Your task to perform on an android device: turn on location history Image 0: 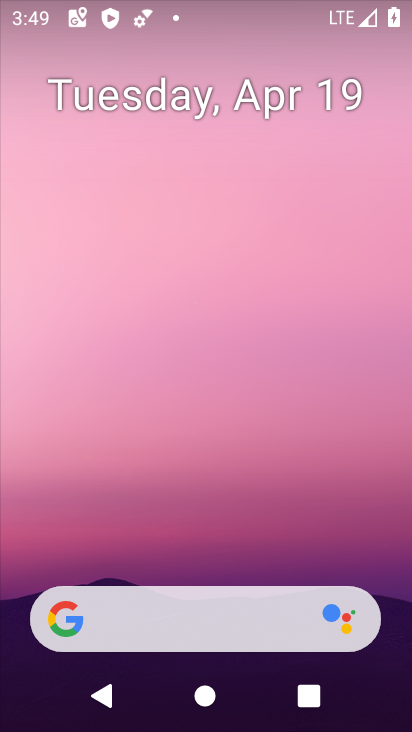
Step 0: drag from (267, 559) to (310, 183)
Your task to perform on an android device: turn on location history Image 1: 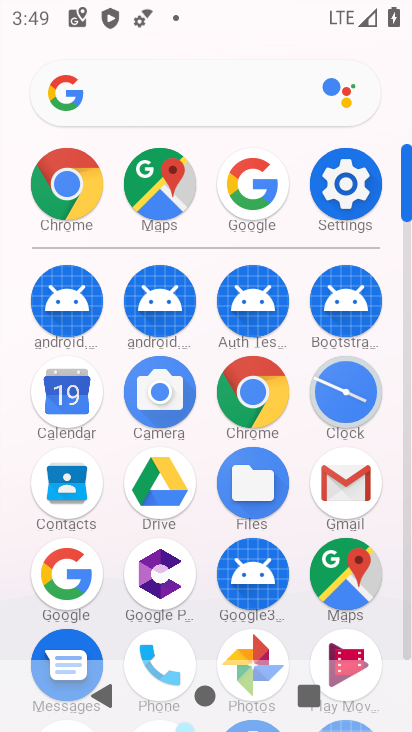
Step 1: click (352, 184)
Your task to perform on an android device: turn on location history Image 2: 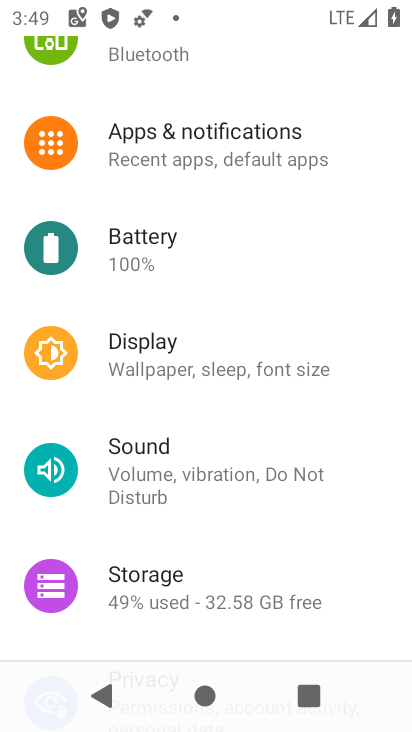
Step 2: drag from (238, 524) to (228, 445)
Your task to perform on an android device: turn on location history Image 3: 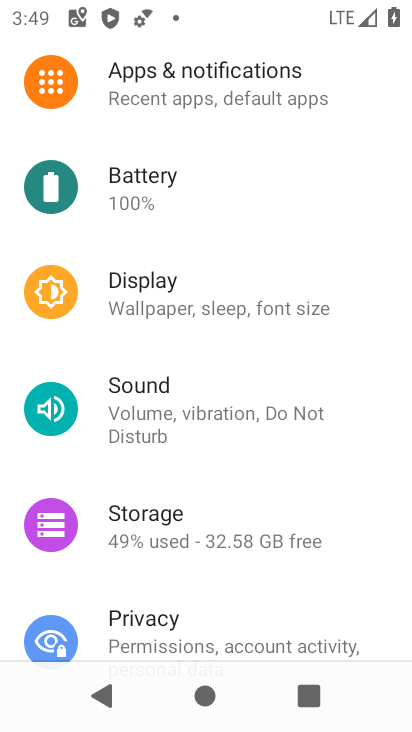
Step 3: drag from (231, 559) to (251, 490)
Your task to perform on an android device: turn on location history Image 4: 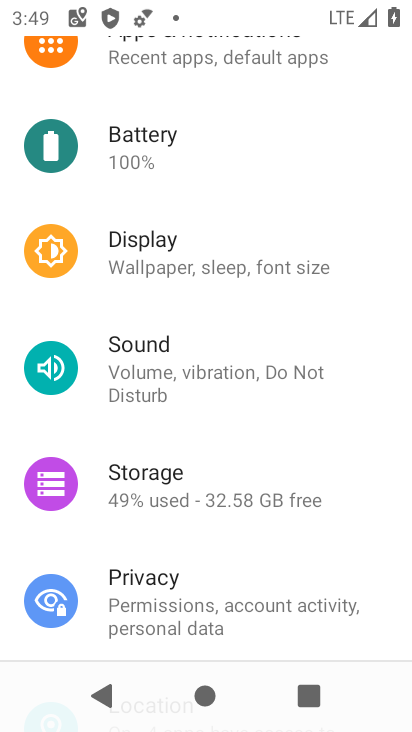
Step 4: drag from (233, 555) to (249, 468)
Your task to perform on an android device: turn on location history Image 5: 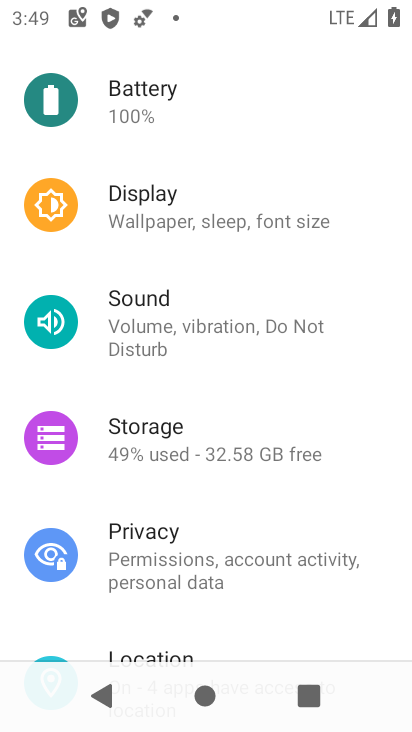
Step 5: drag from (214, 609) to (240, 524)
Your task to perform on an android device: turn on location history Image 6: 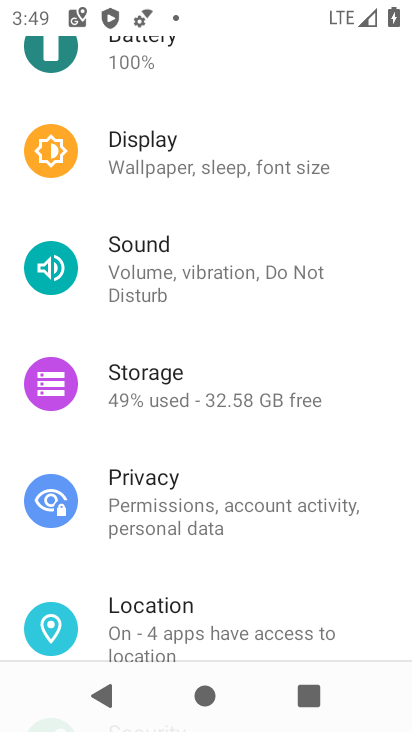
Step 6: drag from (220, 594) to (225, 479)
Your task to perform on an android device: turn on location history Image 7: 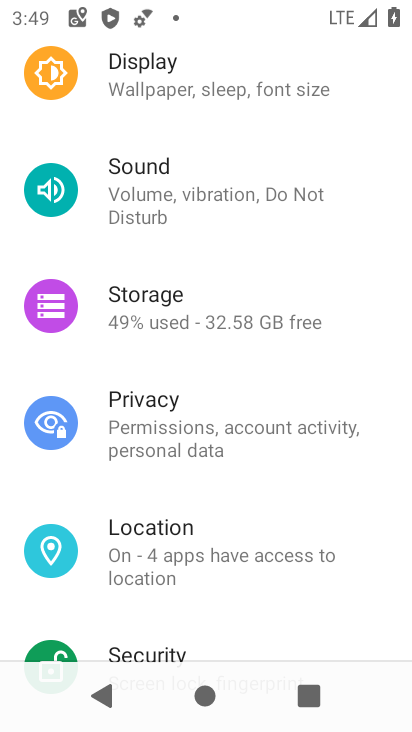
Step 7: click (193, 531)
Your task to perform on an android device: turn on location history Image 8: 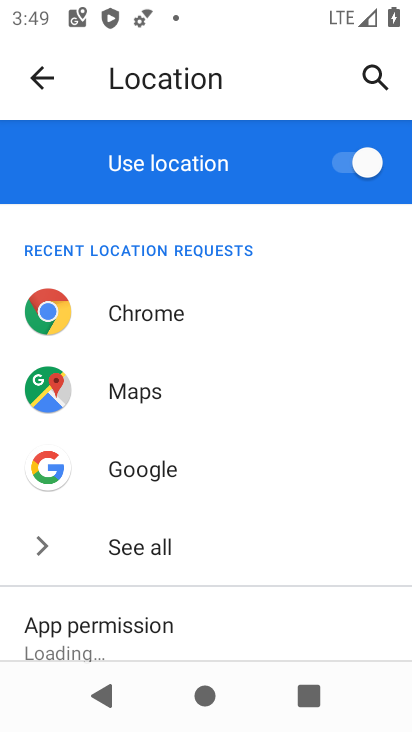
Step 8: drag from (206, 525) to (217, 436)
Your task to perform on an android device: turn on location history Image 9: 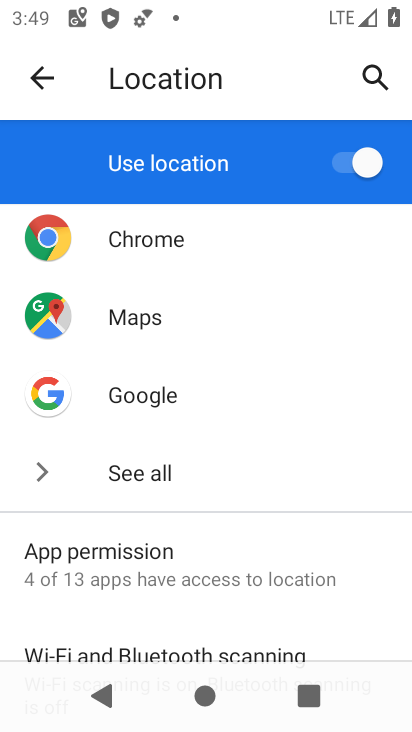
Step 9: drag from (220, 544) to (238, 435)
Your task to perform on an android device: turn on location history Image 10: 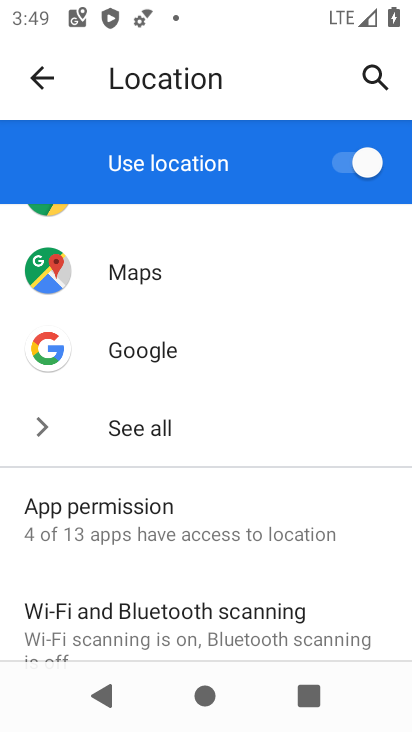
Step 10: drag from (209, 570) to (227, 447)
Your task to perform on an android device: turn on location history Image 11: 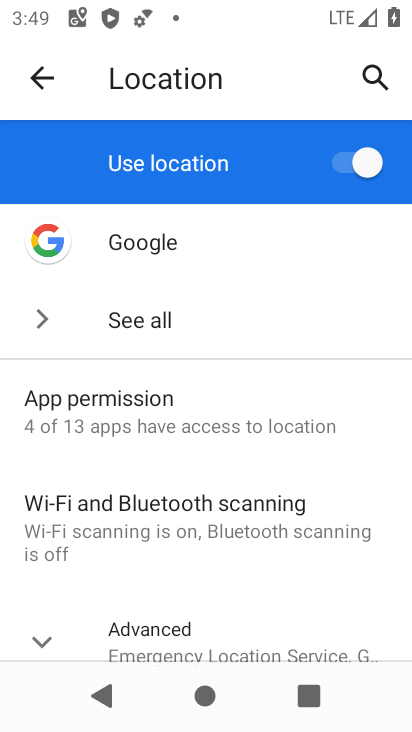
Step 11: drag from (154, 580) to (218, 440)
Your task to perform on an android device: turn on location history Image 12: 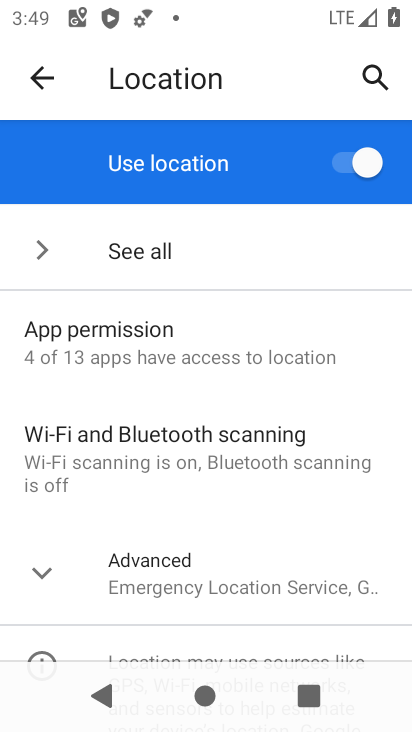
Step 12: click (166, 574)
Your task to perform on an android device: turn on location history Image 13: 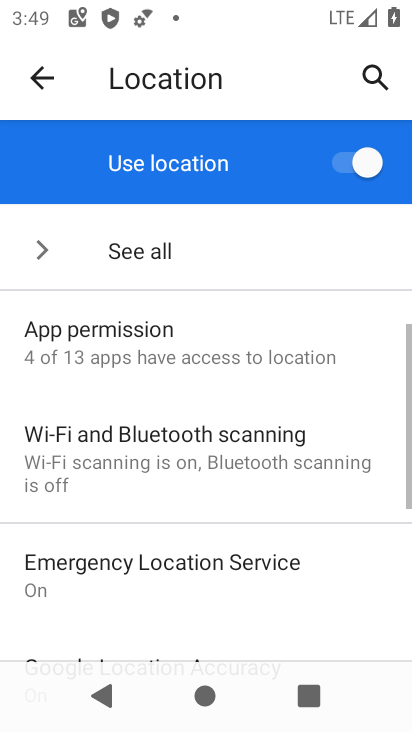
Step 13: drag from (169, 601) to (224, 507)
Your task to perform on an android device: turn on location history Image 14: 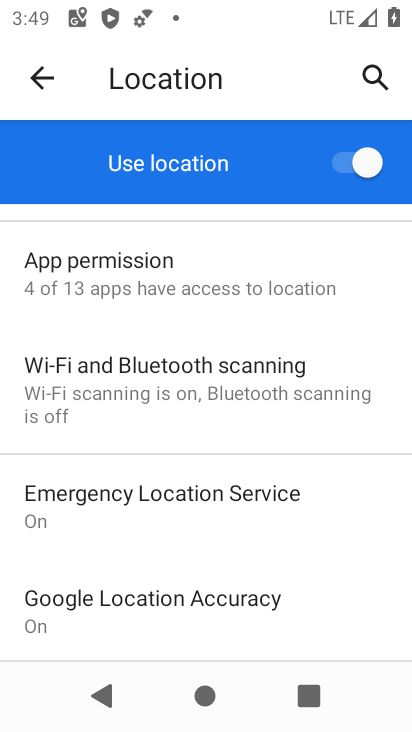
Step 14: drag from (172, 623) to (200, 531)
Your task to perform on an android device: turn on location history Image 15: 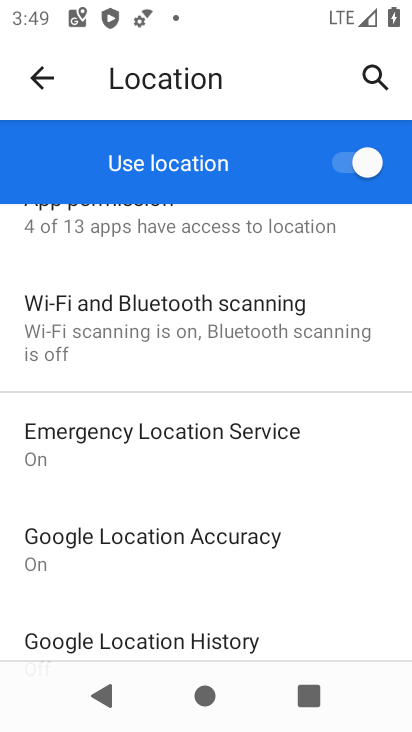
Step 15: drag from (211, 520) to (234, 492)
Your task to perform on an android device: turn on location history Image 16: 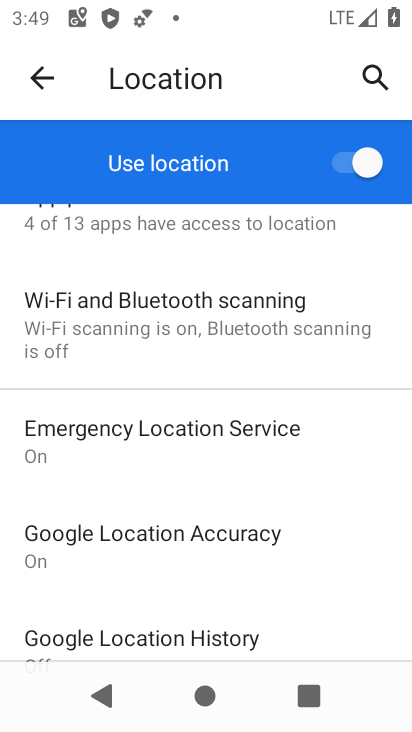
Step 16: drag from (158, 610) to (236, 476)
Your task to perform on an android device: turn on location history Image 17: 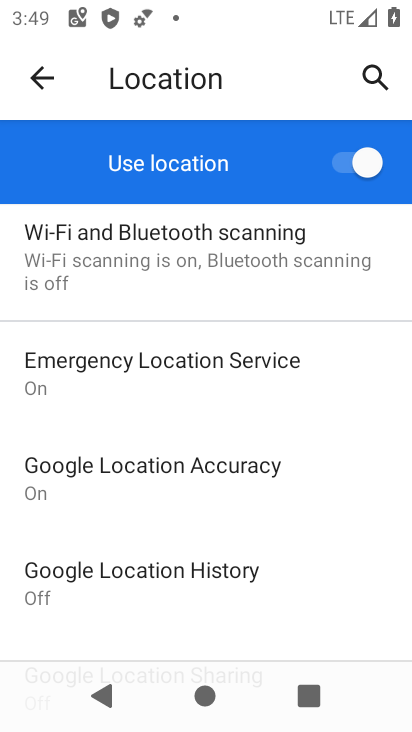
Step 17: click (150, 576)
Your task to perform on an android device: turn on location history Image 18: 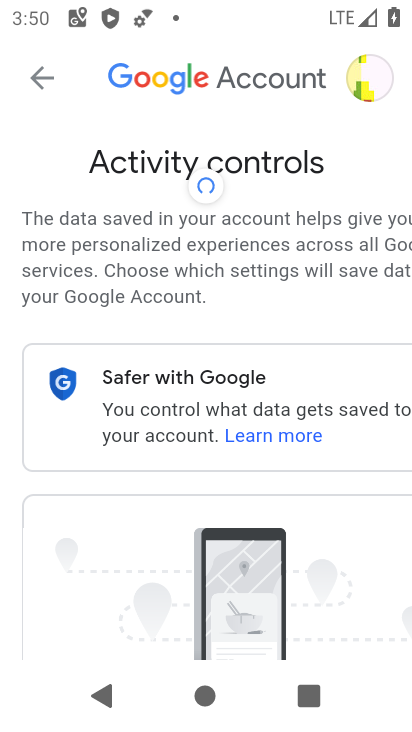
Step 18: drag from (118, 578) to (154, 437)
Your task to perform on an android device: turn on location history Image 19: 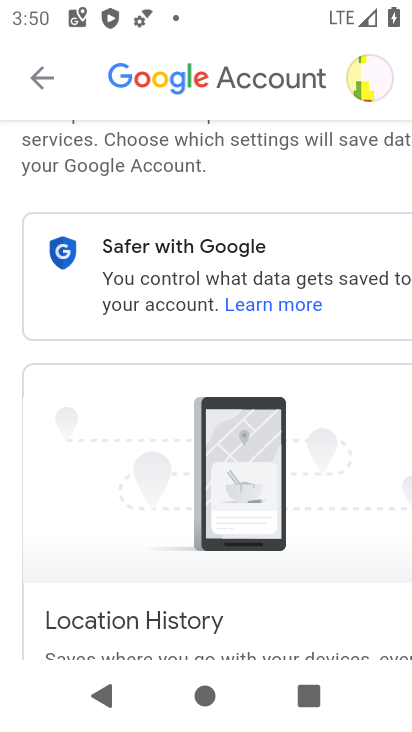
Step 19: drag from (108, 577) to (165, 462)
Your task to perform on an android device: turn on location history Image 20: 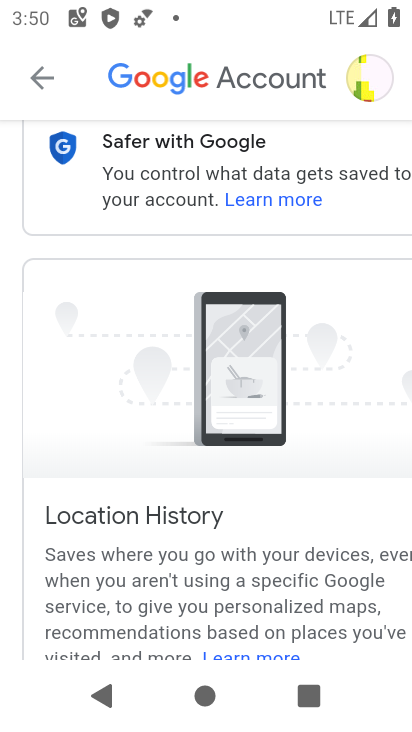
Step 20: drag from (150, 604) to (186, 498)
Your task to perform on an android device: turn on location history Image 21: 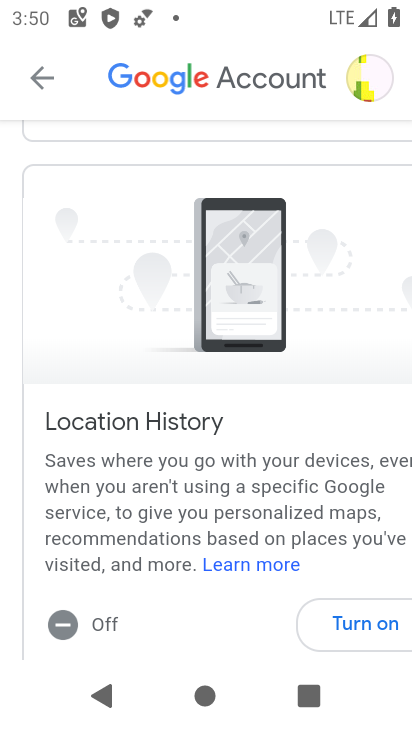
Step 21: click (343, 622)
Your task to perform on an android device: turn on location history Image 22: 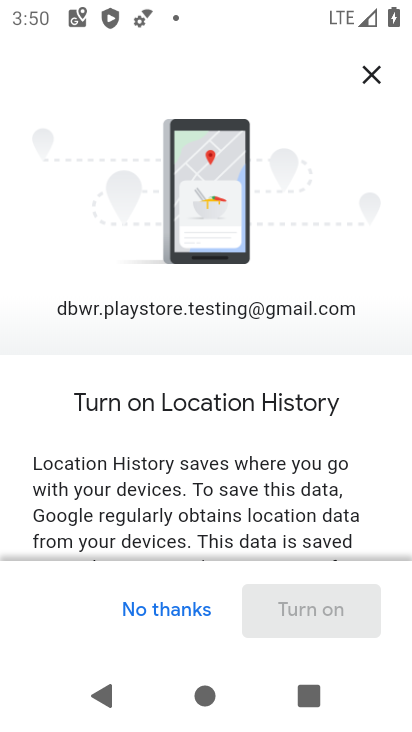
Step 22: task complete